Your task to perform on an android device: How much does a 3 bedroom apartment rent for in Philadelphia? Image 0: 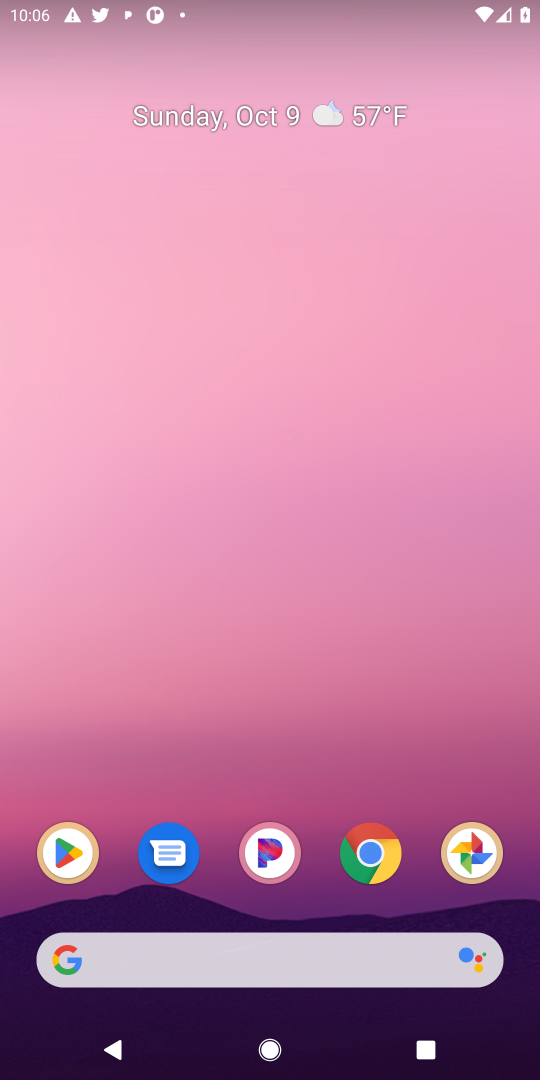
Step 0: click (351, 850)
Your task to perform on an android device: How much does a 3 bedroom apartment rent for in Philadelphia? Image 1: 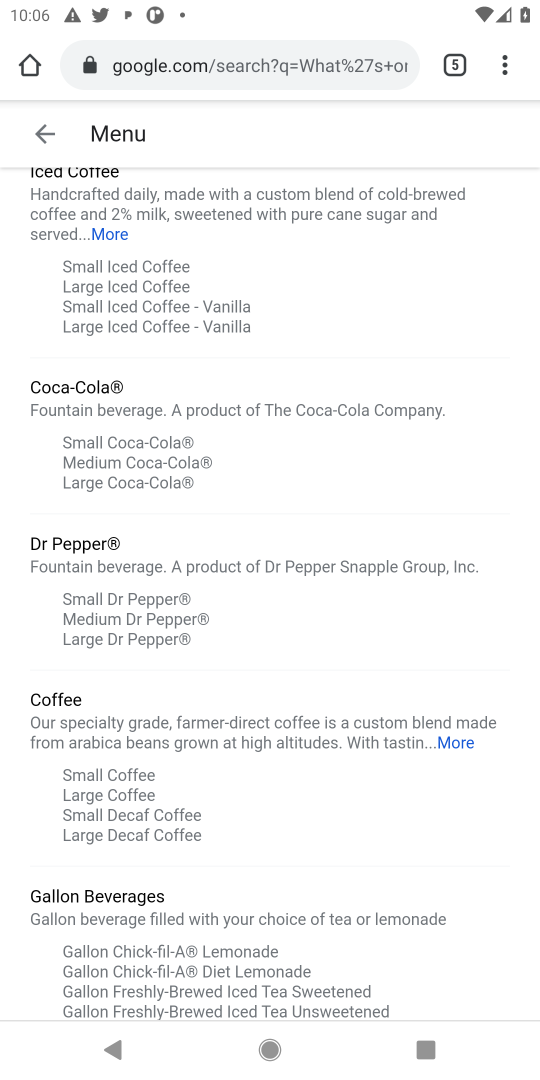
Step 1: click (264, 71)
Your task to perform on an android device: How much does a 3 bedroom apartment rent for in Philadelphia? Image 2: 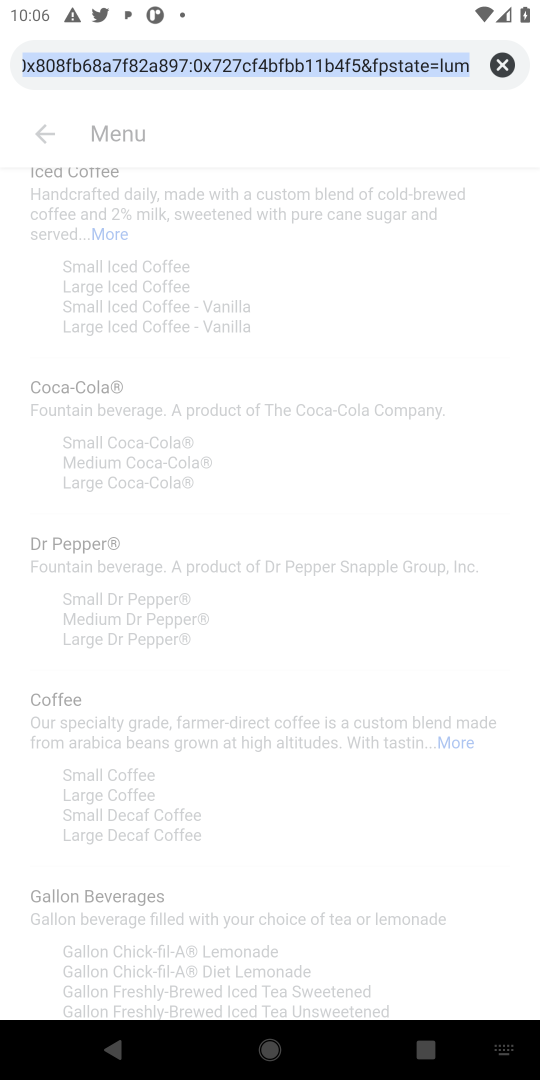
Step 2: type "How much does a 3 bedroom apartment rent for in Philadelphia?"
Your task to perform on an android device: How much does a 3 bedroom apartment rent for in Philadelphia? Image 3: 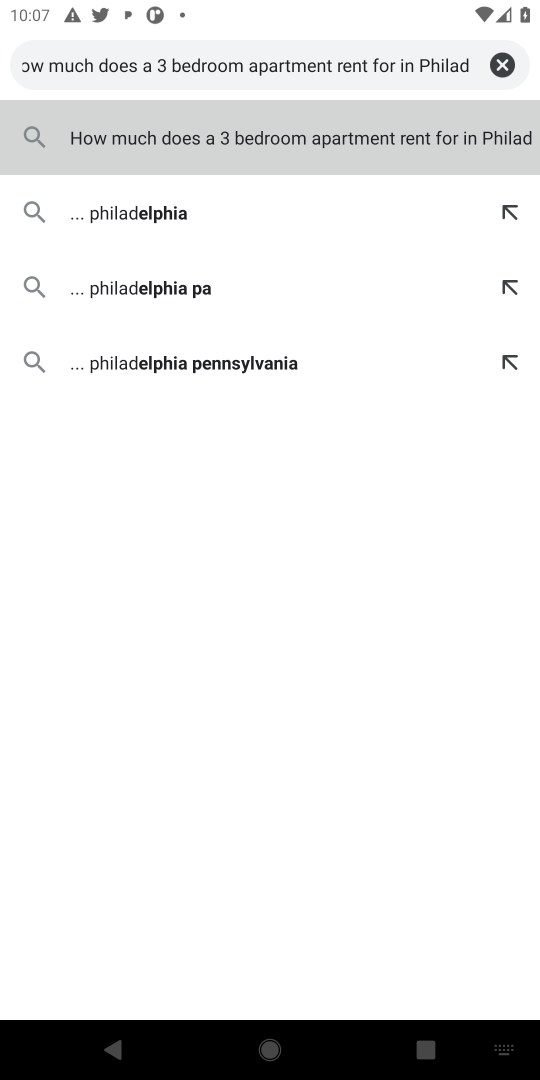
Step 3: type ""
Your task to perform on an android device: How much does a 3 bedroom apartment rent for in Philadelphia? Image 4: 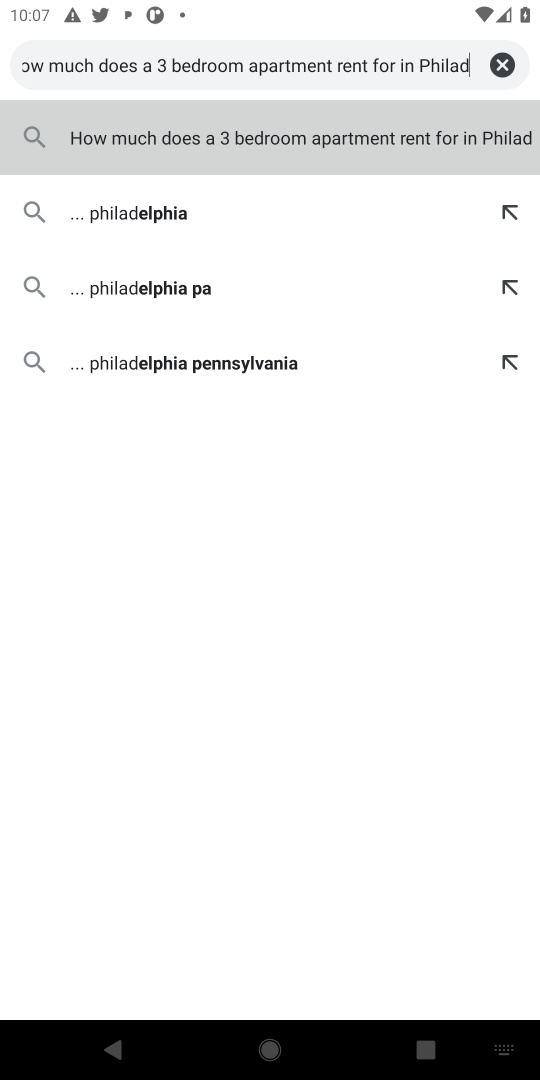
Step 4: press enter
Your task to perform on an android device: How much does a 3 bedroom apartment rent for in Philadelphia? Image 5: 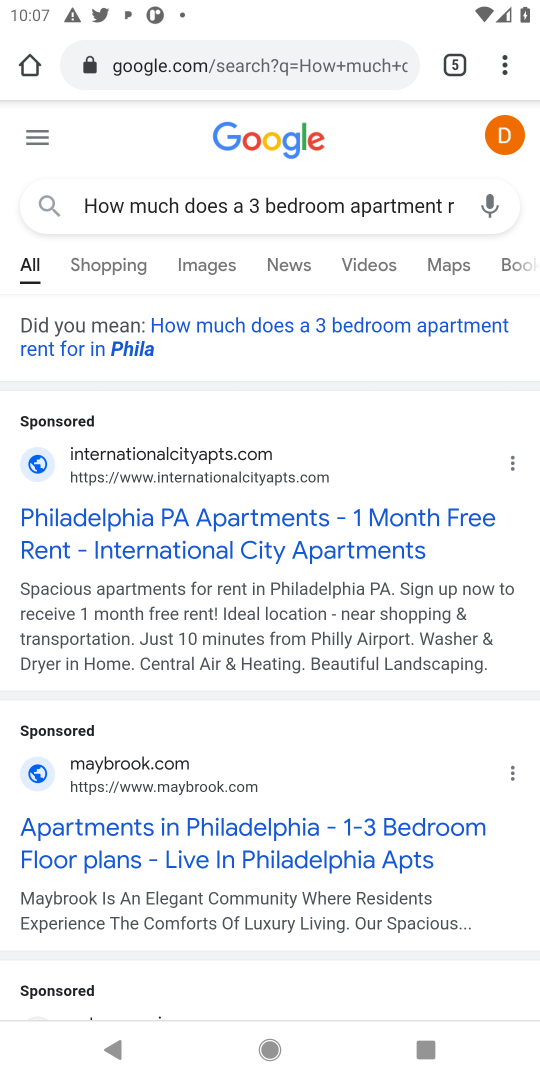
Step 5: click (174, 518)
Your task to perform on an android device: How much does a 3 bedroom apartment rent for in Philadelphia? Image 6: 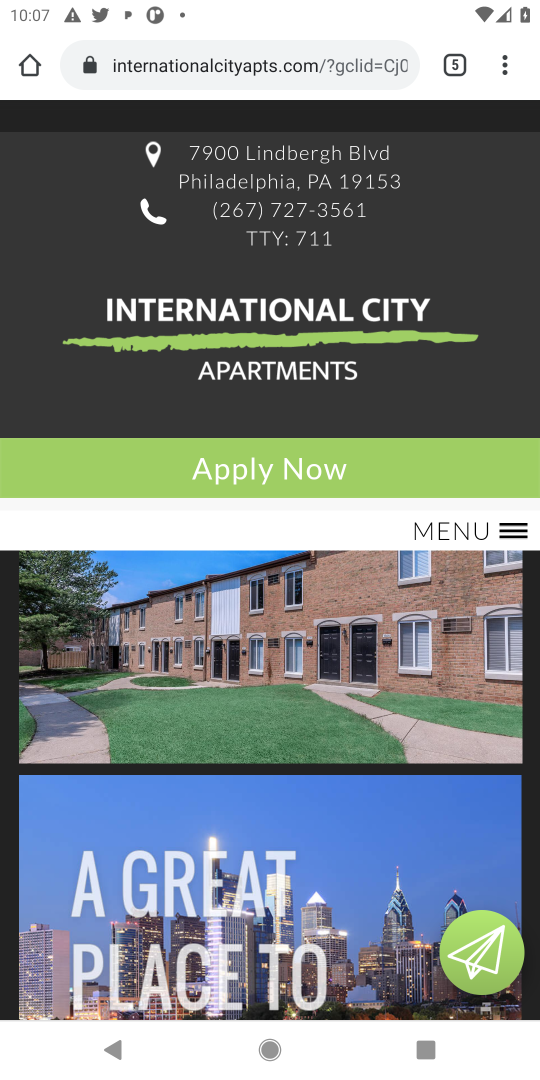
Step 6: drag from (312, 764) to (351, 245)
Your task to perform on an android device: How much does a 3 bedroom apartment rent for in Philadelphia? Image 7: 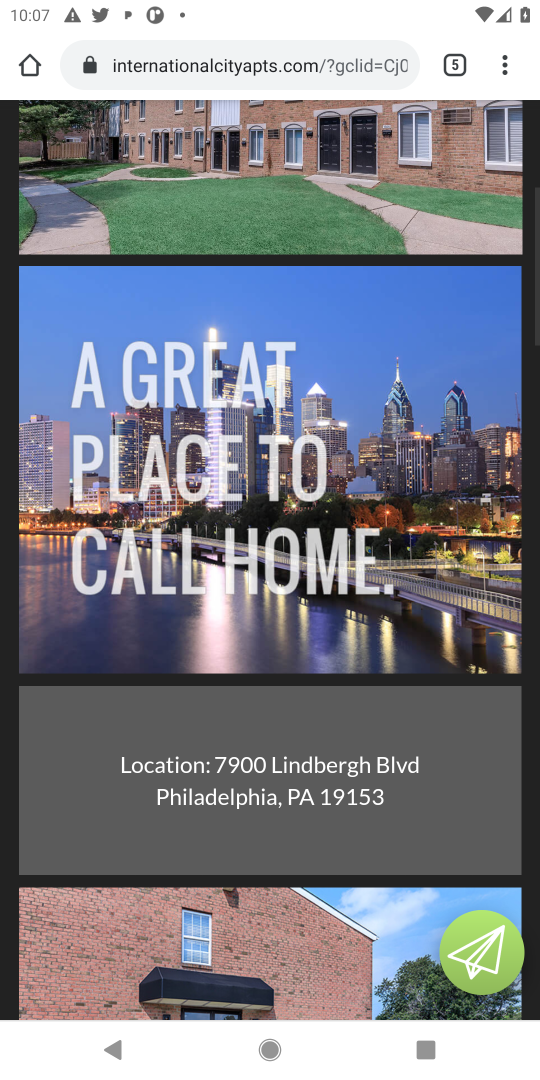
Step 7: drag from (339, 406) to (381, 273)
Your task to perform on an android device: How much does a 3 bedroom apartment rent for in Philadelphia? Image 8: 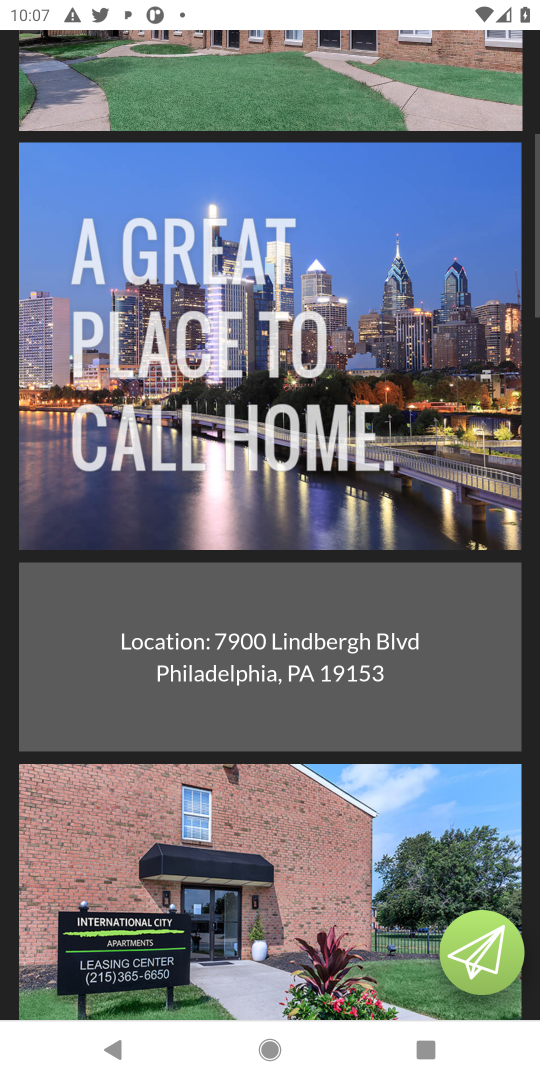
Step 8: drag from (359, 361) to (381, 262)
Your task to perform on an android device: How much does a 3 bedroom apartment rent for in Philadelphia? Image 9: 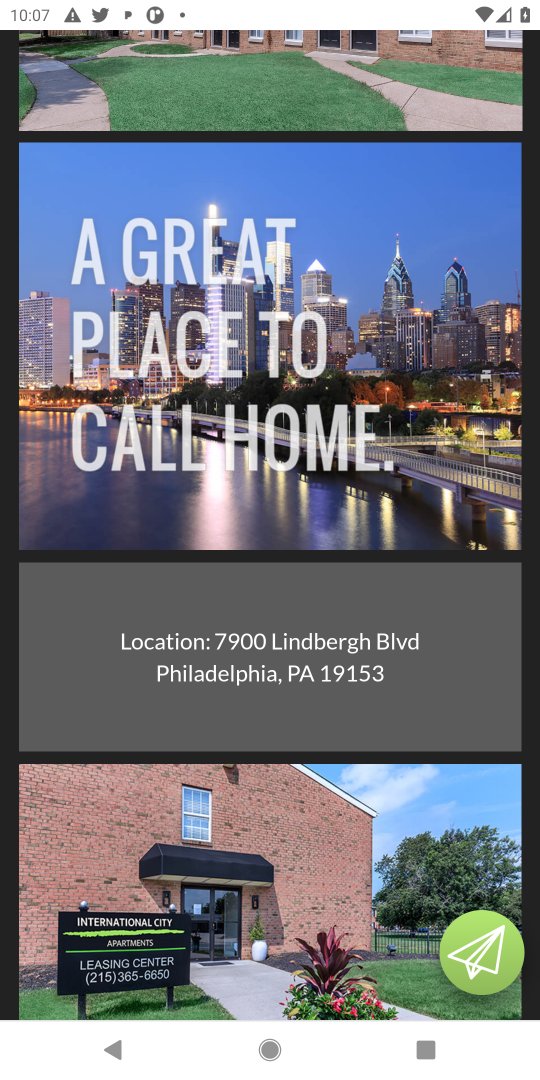
Step 9: drag from (375, 649) to (384, 224)
Your task to perform on an android device: How much does a 3 bedroom apartment rent for in Philadelphia? Image 10: 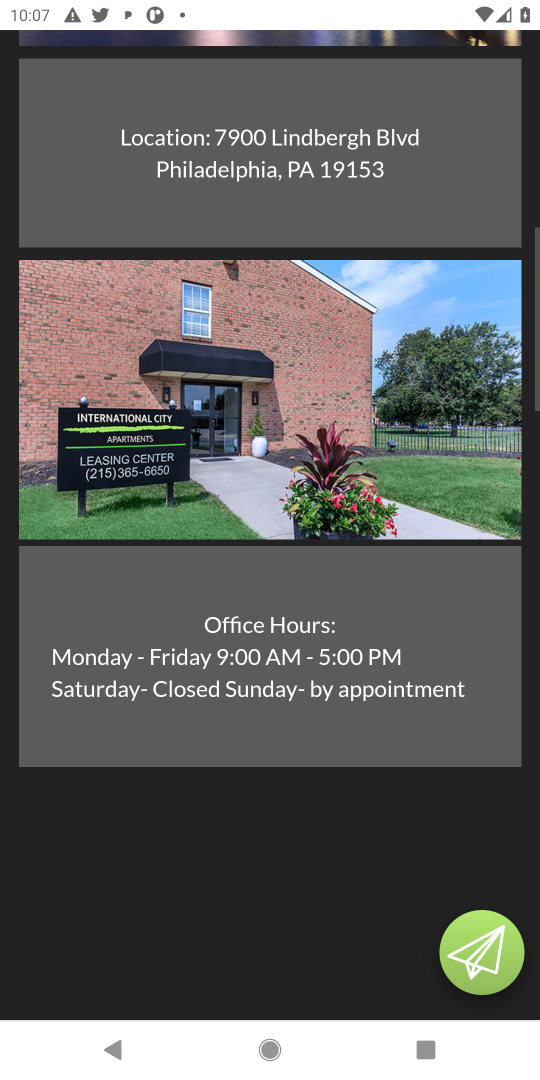
Step 10: drag from (396, 659) to (432, 202)
Your task to perform on an android device: How much does a 3 bedroom apartment rent for in Philadelphia? Image 11: 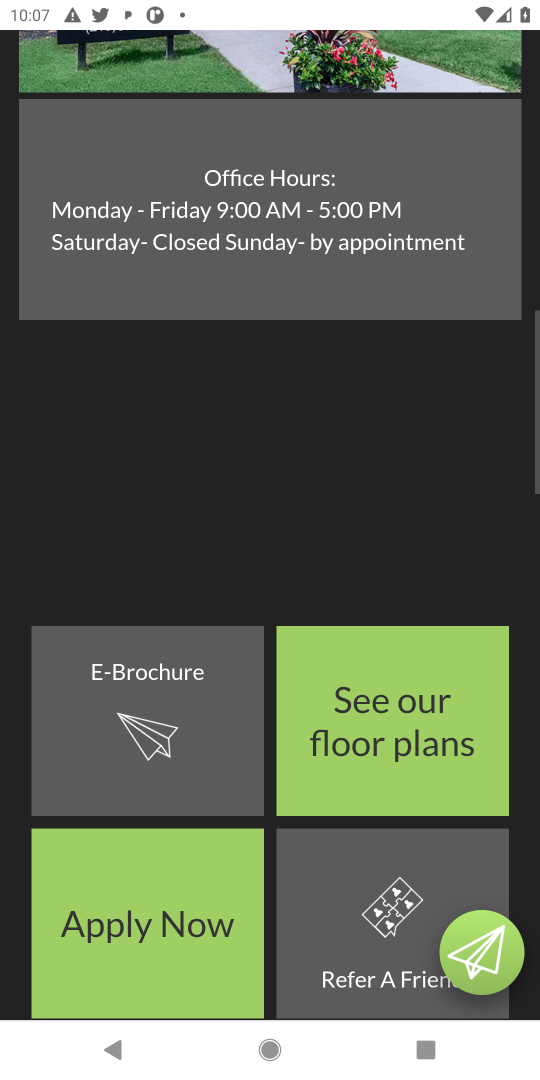
Step 11: drag from (441, 558) to (447, 194)
Your task to perform on an android device: How much does a 3 bedroom apartment rent for in Philadelphia? Image 12: 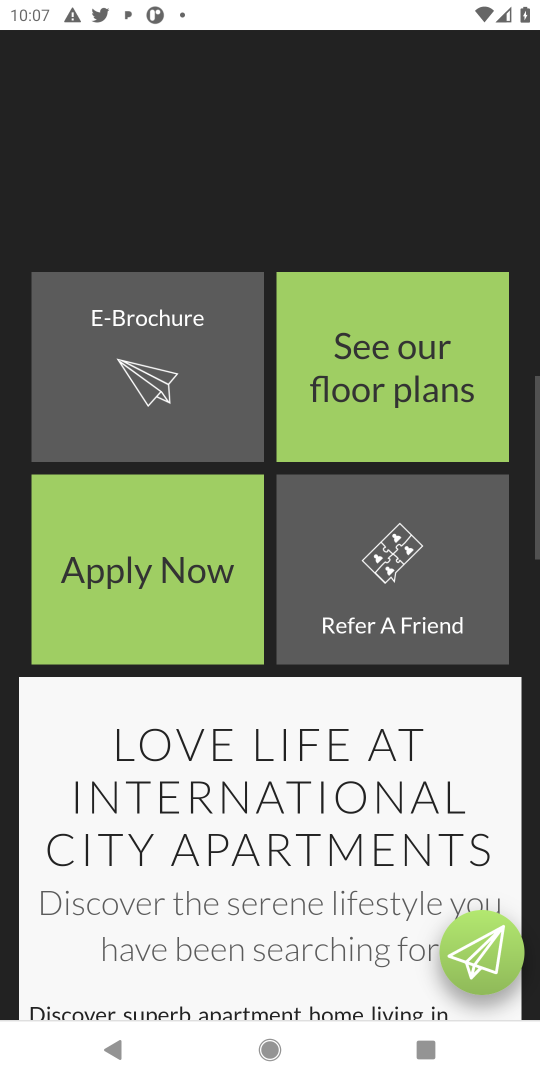
Step 12: drag from (388, 644) to (427, 198)
Your task to perform on an android device: How much does a 3 bedroom apartment rent for in Philadelphia? Image 13: 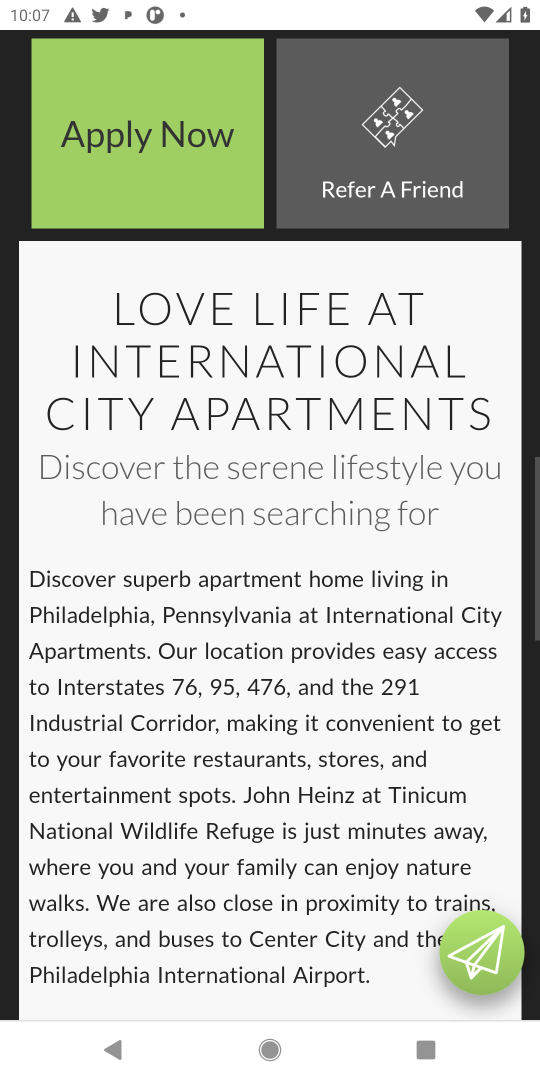
Step 13: drag from (370, 616) to (396, 170)
Your task to perform on an android device: How much does a 3 bedroom apartment rent for in Philadelphia? Image 14: 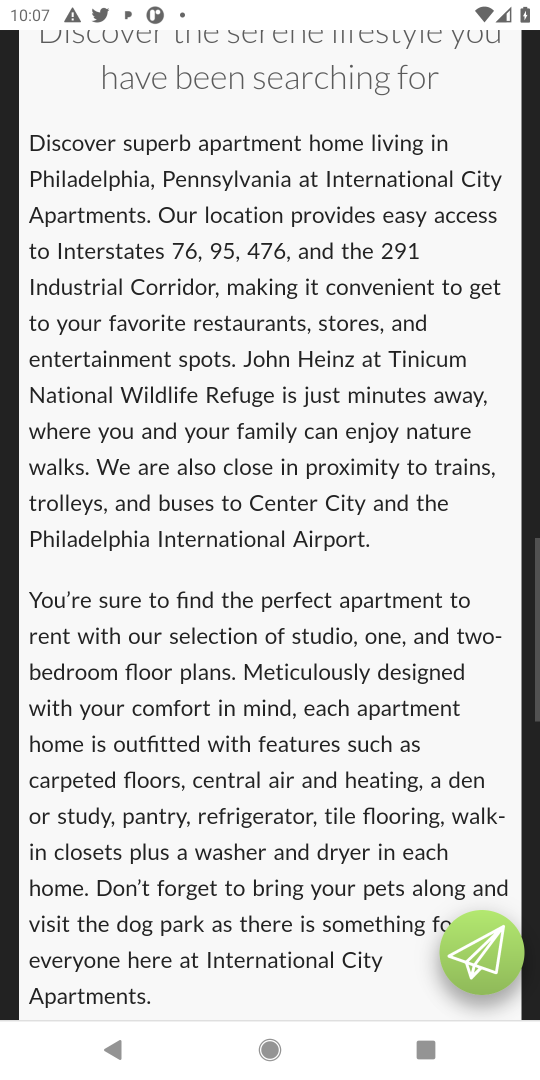
Step 14: drag from (329, 559) to (336, 310)
Your task to perform on an android device: How much does a 3 bedroom apartment rent for in Philadelphia? Image 15: 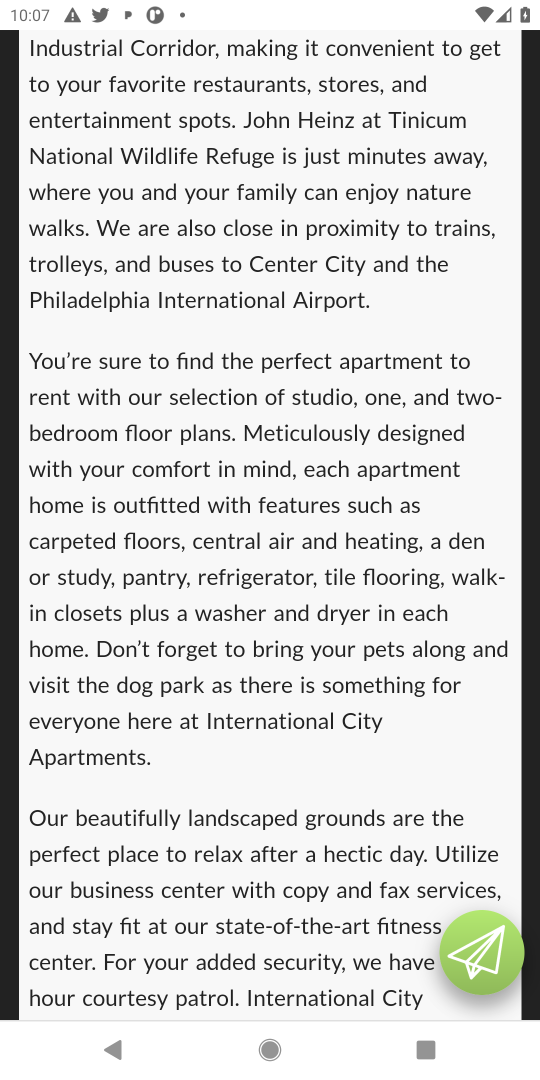
Step 15: drag from (313, 574) to (351, 182)
Your task to perform on an android device: How much does a 3 bedroom apartment rent for in Philadelphia? Image 16: 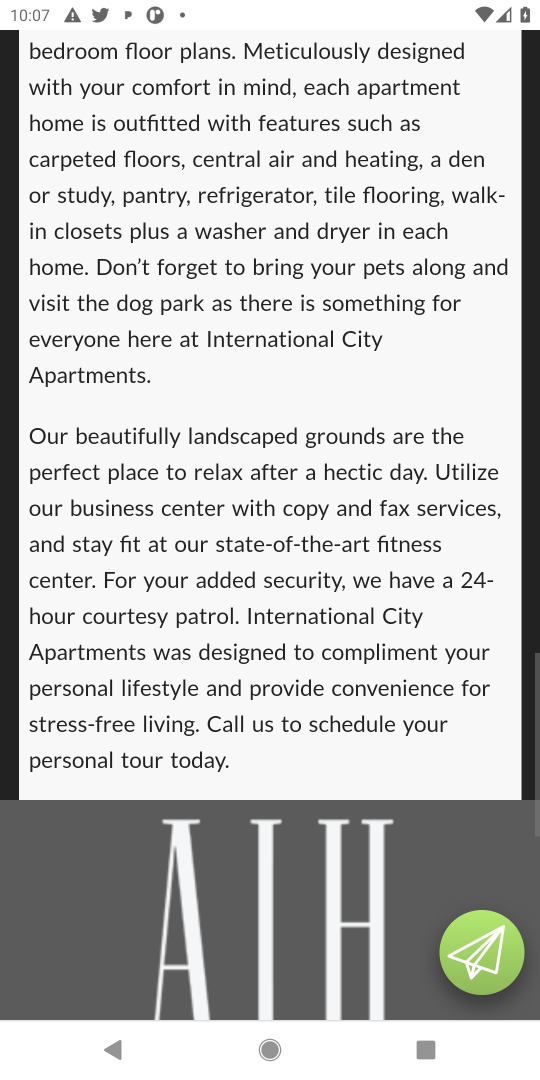
Step 16: drag from (263, 664) to (305, 300)
Your task to perform on an android device: How much does a 3 bedroom apartment rent for in Philadelphia? Image 17: 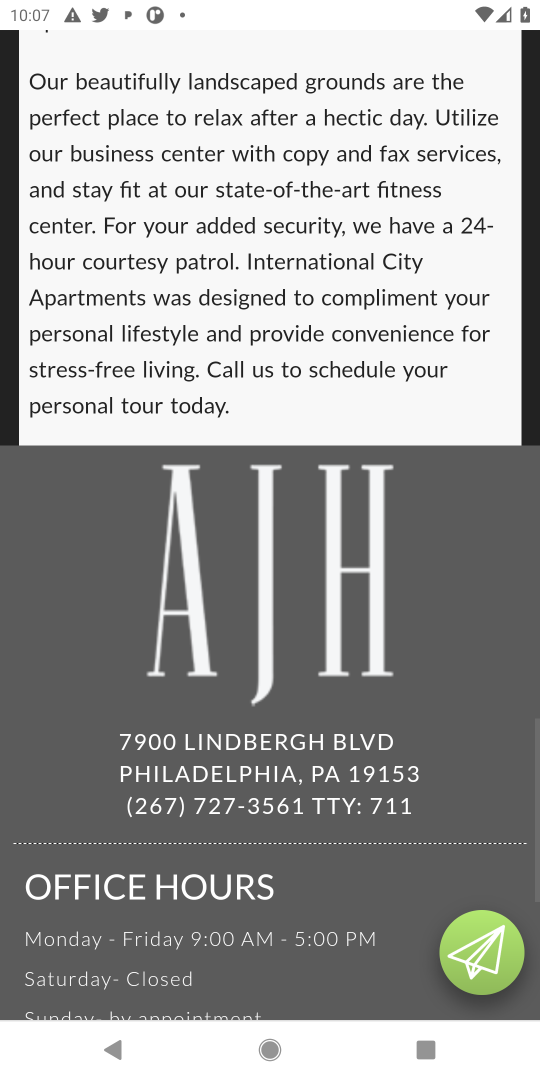
Step 17: drag from (294, 700) to (301, 262)
Your task to perform on an android device: How much does a 3 bedroom apartment rent for in Philadelphia? Image 18: 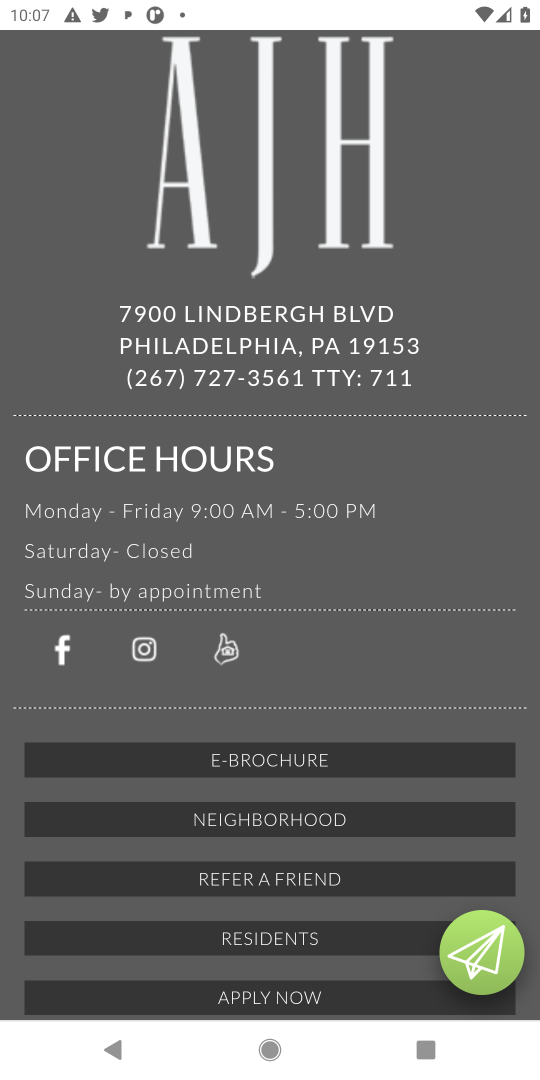
Step 18: drag from (393, 630) to (440, 348)
Your task to perform on an android device: How much does a 3 bedroom apartment rent for in Philadelphia? Image 19: 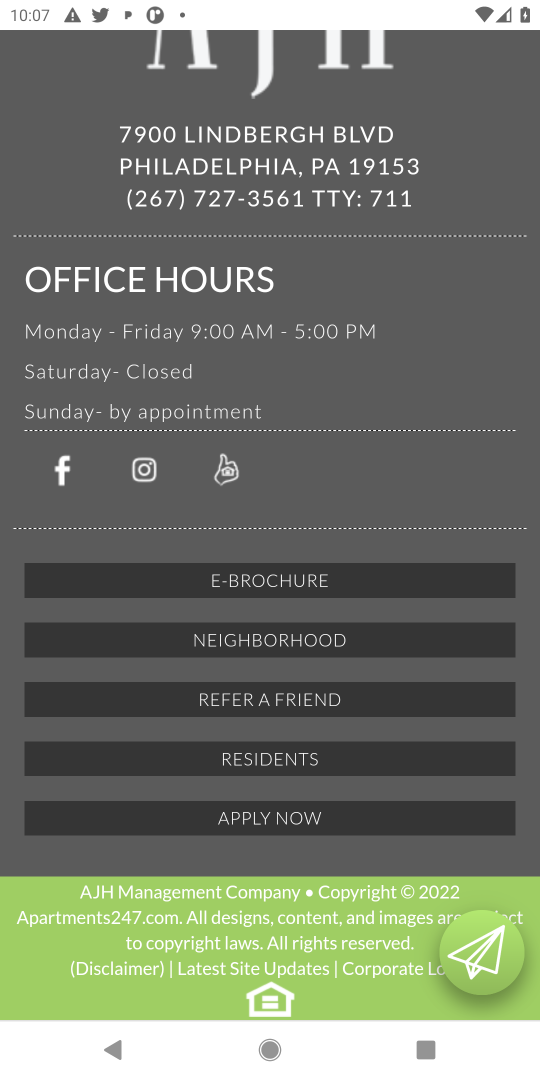
Step 19: drag from (333, 667) to (336, 244)
Your task to perform on an android device: How much does a 3 bedroom apartment rent for in Philadelphia? Image 20: 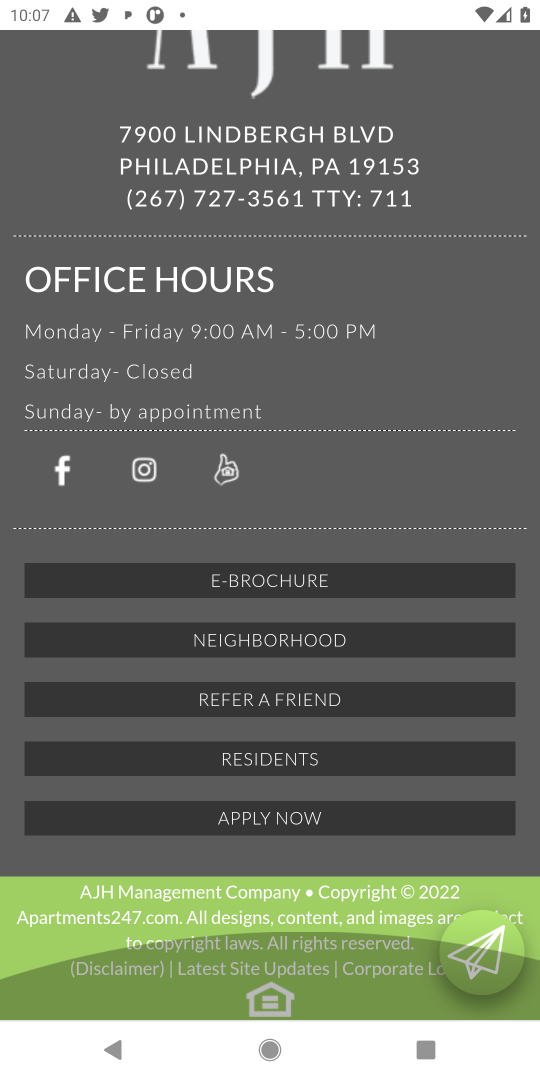
Step 20: drag from (286, 624) to (300, 330)
Your task to perform on an android device: How much does a 3 bedroom apartment rent for in Philadelphia? Image 21: 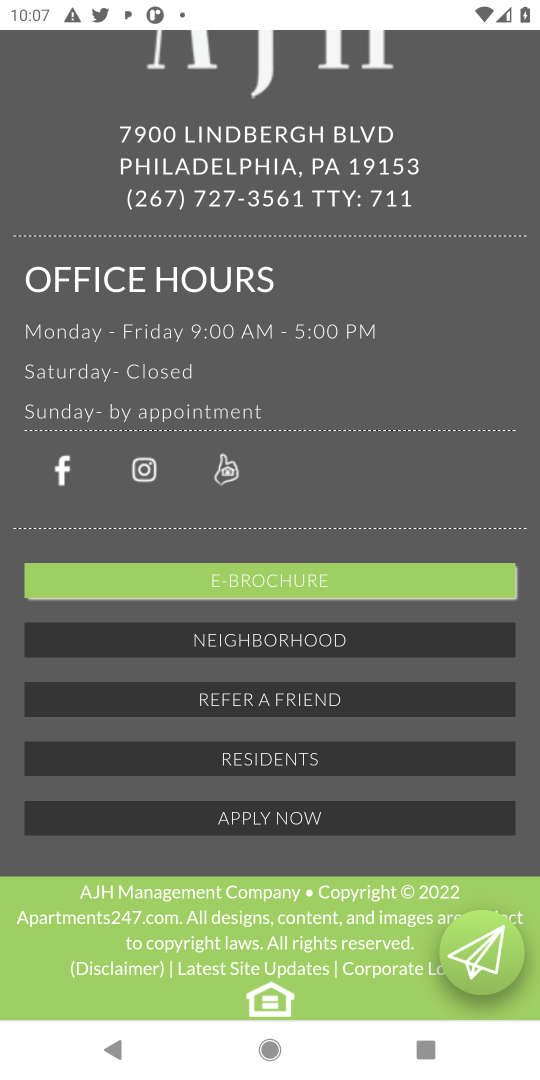
Step 21: drag from (299, 743) to (327, 243)
Your task to perform on an android device: How much does a 3 bedroom apartment rent for in Philadelphia? Image 22: 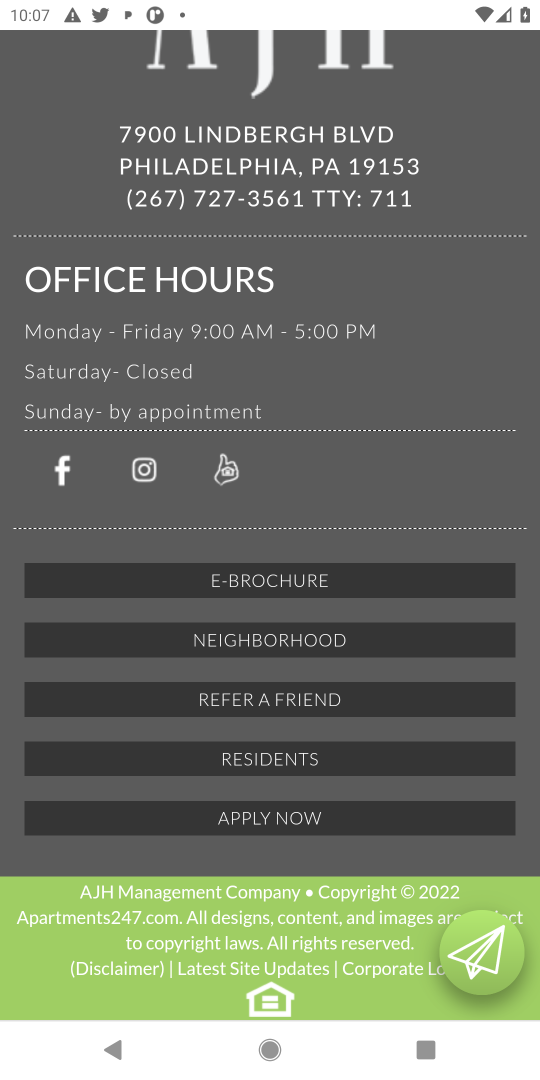
Step 22: press back button
Your task to perform on an android device: How much does a 3 bedroom apartment rent for in Philadelphia? Image 23: 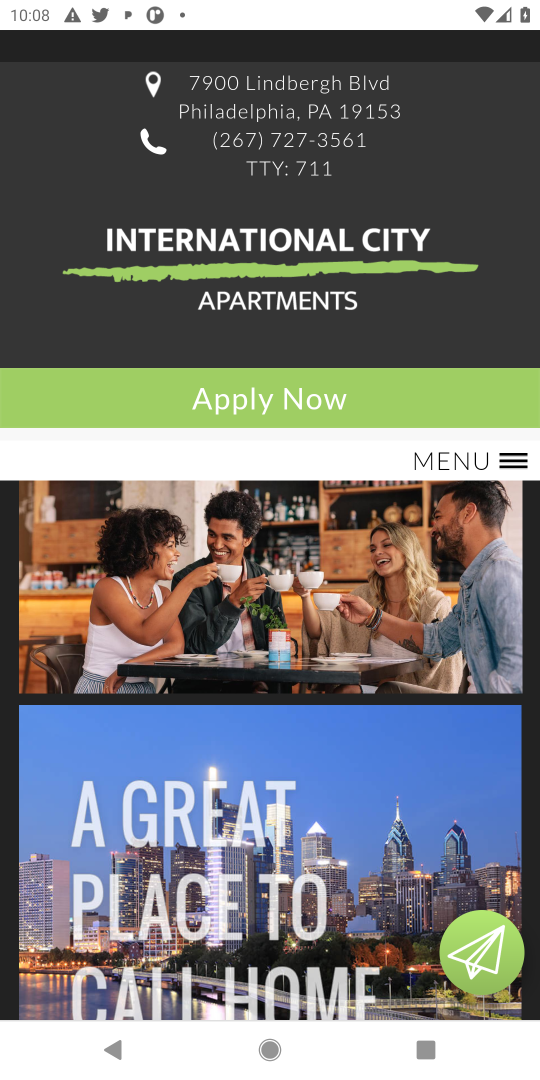
Step 23: press back button
Your task to perform on an android device: How much does a 3 bedroom apartment rent for in Philadelphia? Image 24: 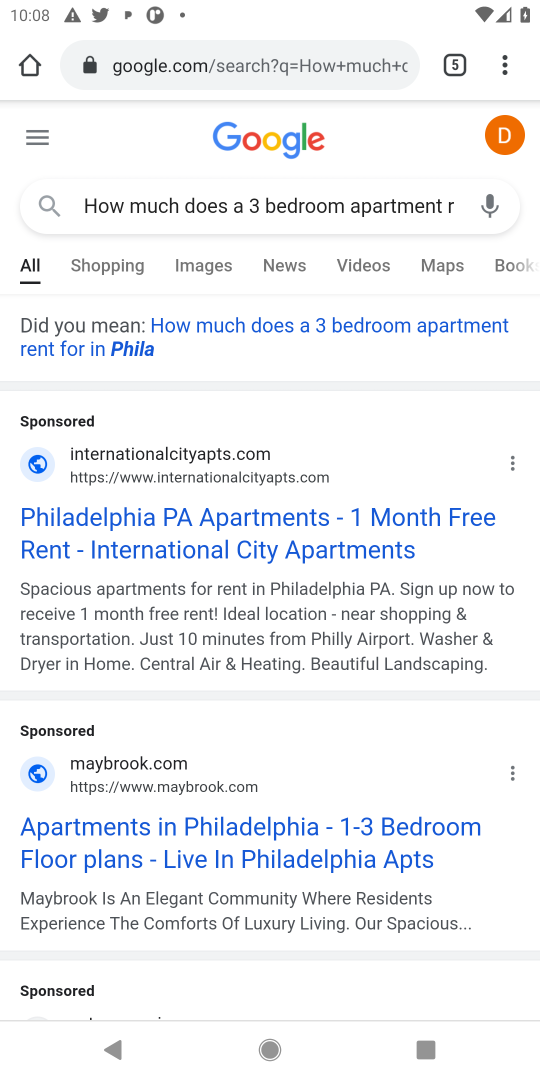
Step 24: drag from (205, 509) to (251, 148)
Your task to perform on an android device: How much does a 3 bedroom apartment rent for in Philadelphia? Image 25: 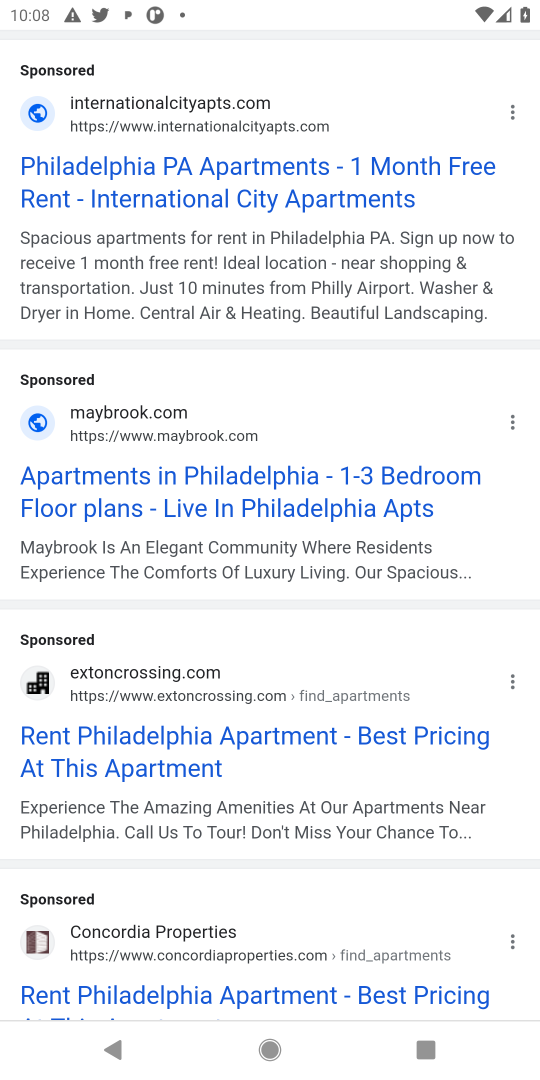
Step 25: drag from (149, 791) to (239, 241)
Your task to perform on an android device: How much does a 3 bedroom apartment rent for in Philadelphia? Image 26: 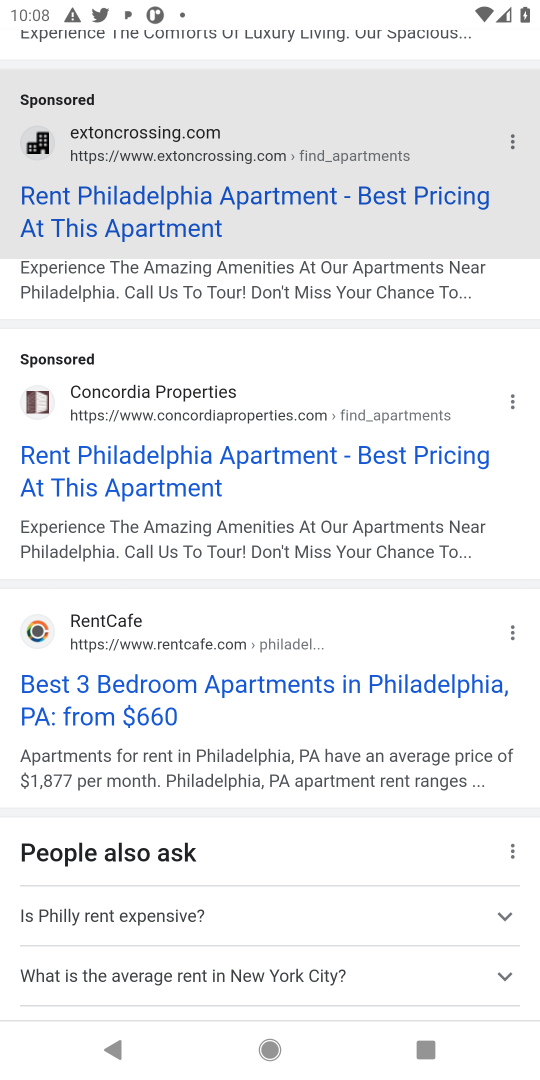
Step 26: click (276, 669)
Your task to perform on an android device: How much does a 3 bedroom apartment rent for in Philadelphia? Image 27: 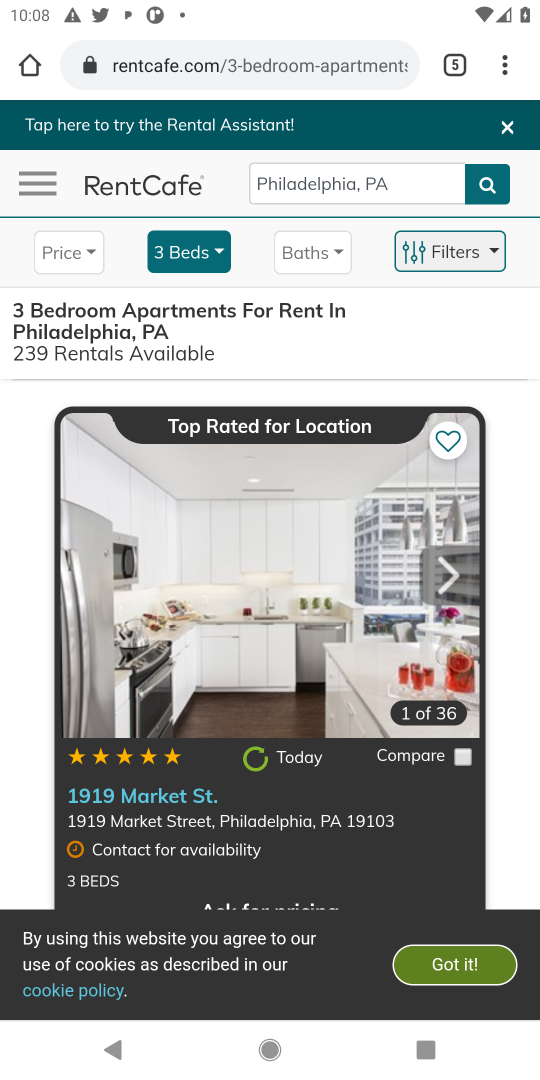
Step 27: drag from (292, 612) to (333, 168)
Your task to perform on an android device: How much does a 3 bedroom apartment rent for in Philadelphia? Image 28: 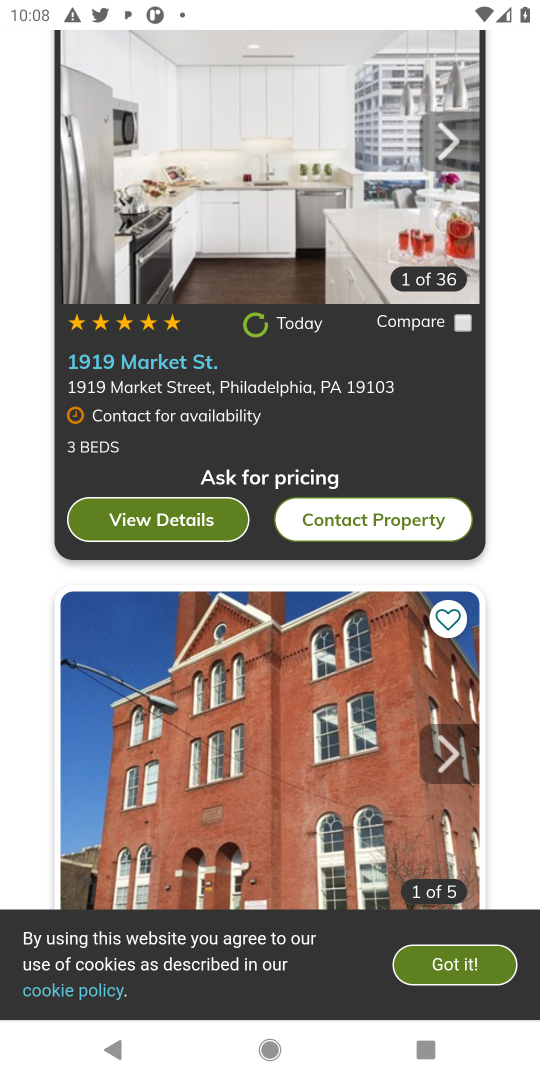
Step 28: drag from (376, 557) to (373, 97)
Your task to perform on an android device: How much does a 3 bedroom apartment rent for in Philadelphia? Image 29: 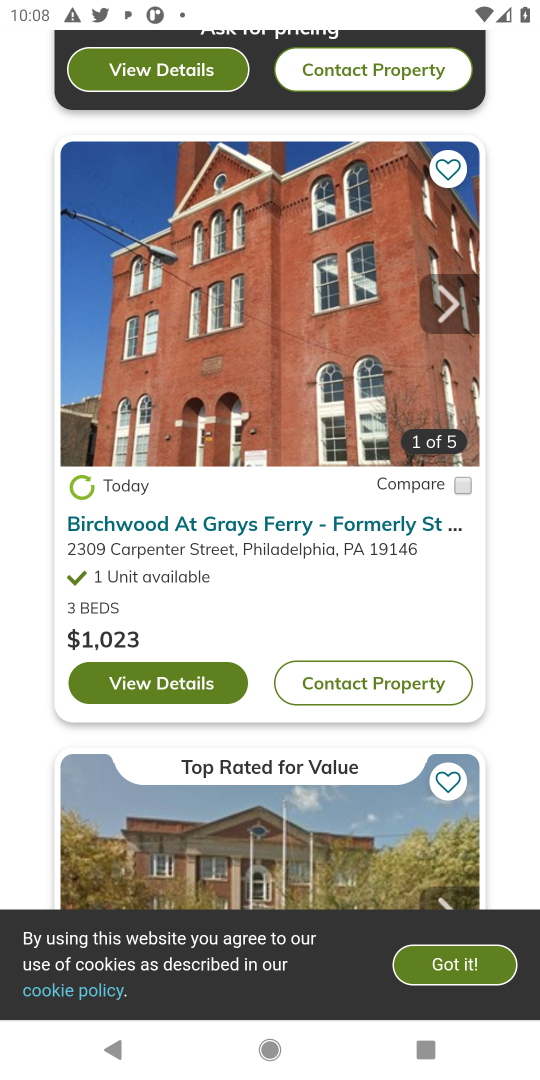
Step 29: drag from (401, 673) to (337, 28)
Your task to perform on an android device: How much does a 3 bedroom apartment rent for in Philadelphia? Image 30: 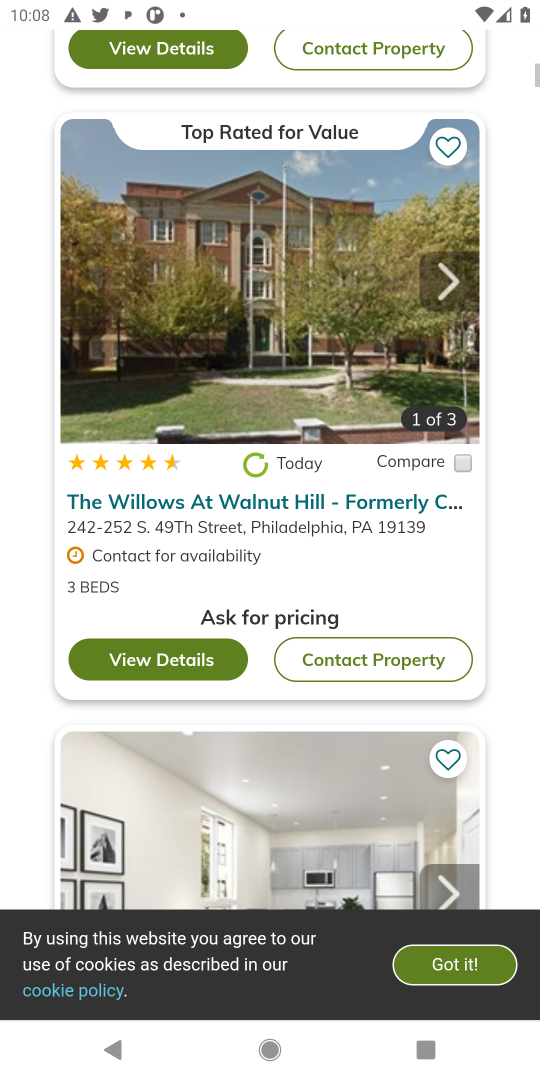
Step 30: drag from (279, 494) to (274, 135)
Your task to perform on an android device: How much does a 3 bedroom apartment rent for in Philadelphia? Image 31: 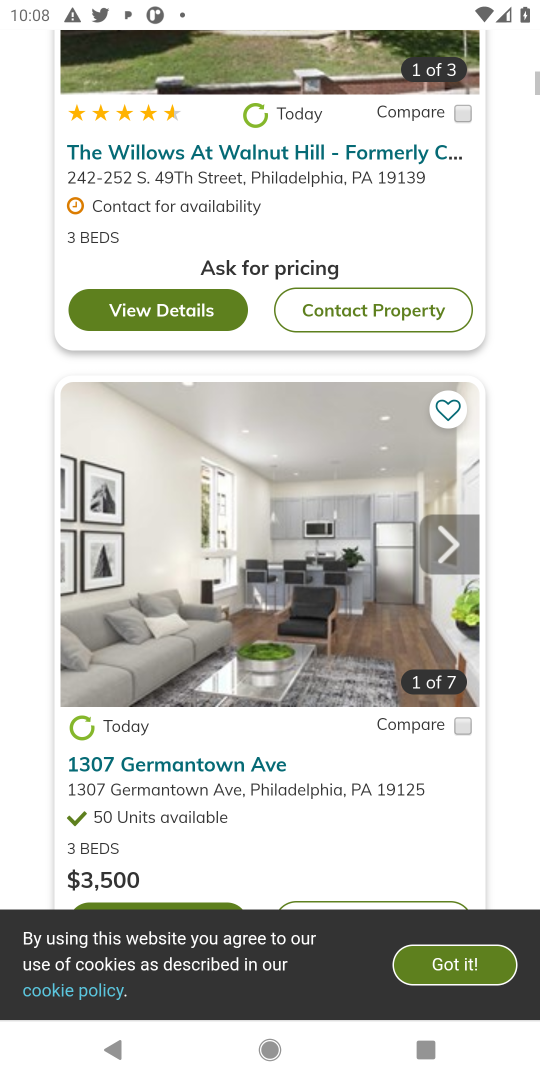
Step 31: drag from (343, 715) to (278, 255)
Your task to perform on an android device: How much does a 3 bedroom apartment rent for in Philadelphia? Image 32: 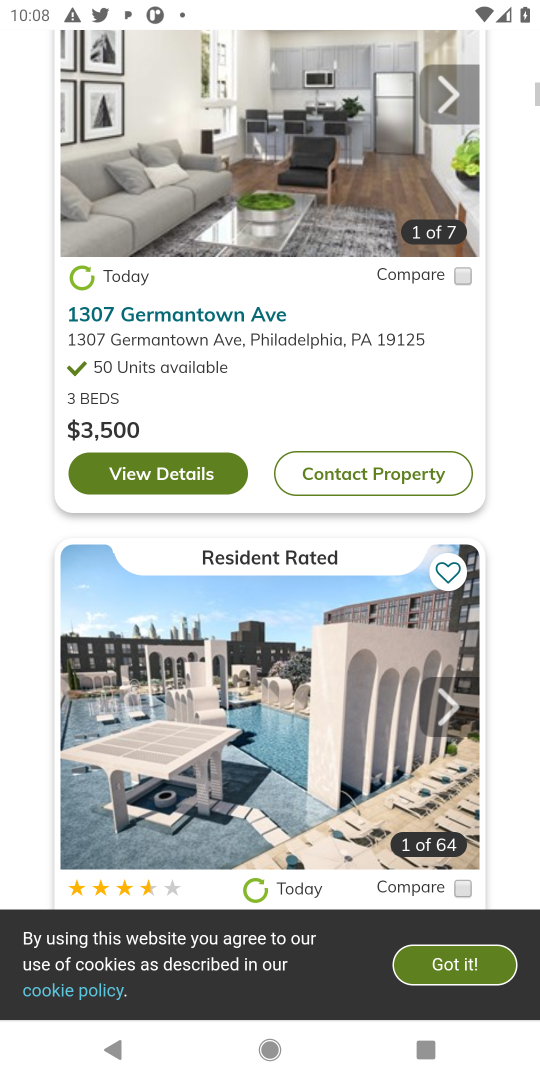
Step 32: drag from (331, 639) to (333, 335)
Your task to perform on an android device: How much does a 3 bedroom apartment rent for in Philadelphia? Image 33: 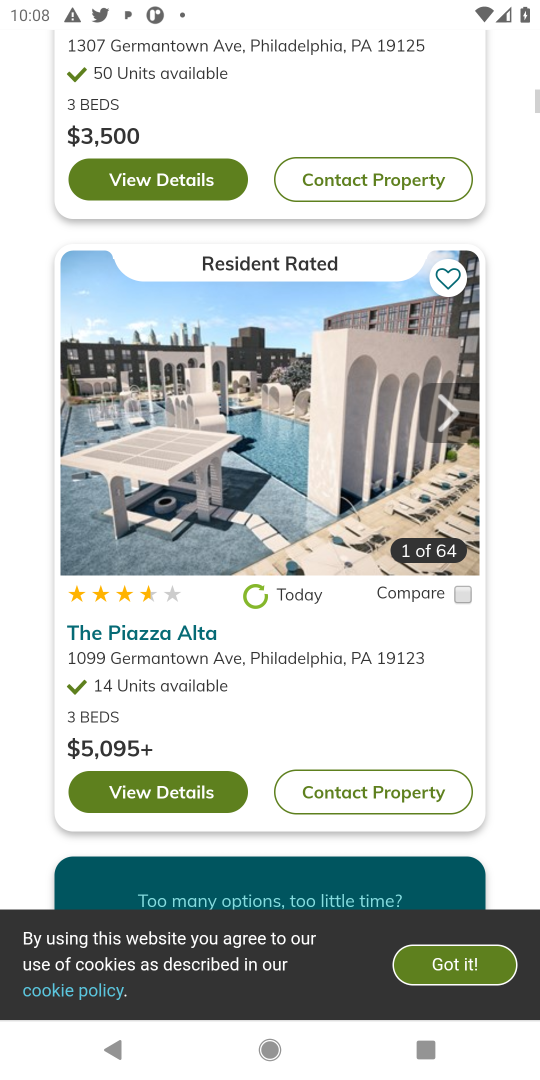
Step 33: drag from (332, 634) to (331, 301)
Your task to perform on an android device: How much does a 3 bedroom apartment rent for in Philadelphia? Image 34: 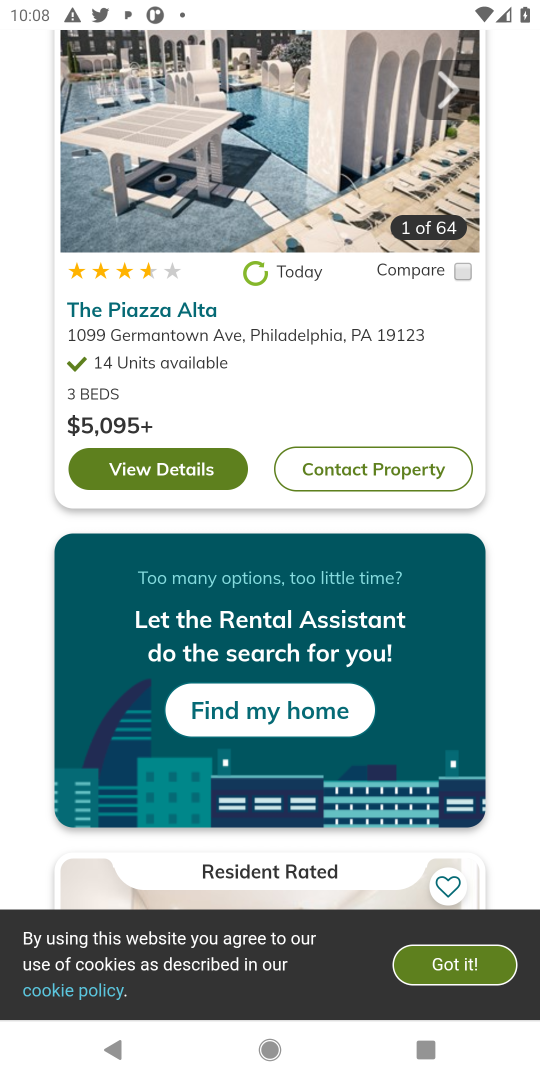
Step 34: drag from (302, 521) to (288, 411)
Your task to perform on an android device: How much does a 3 bedroom apartment rent for in Philadelphia? Image 35: 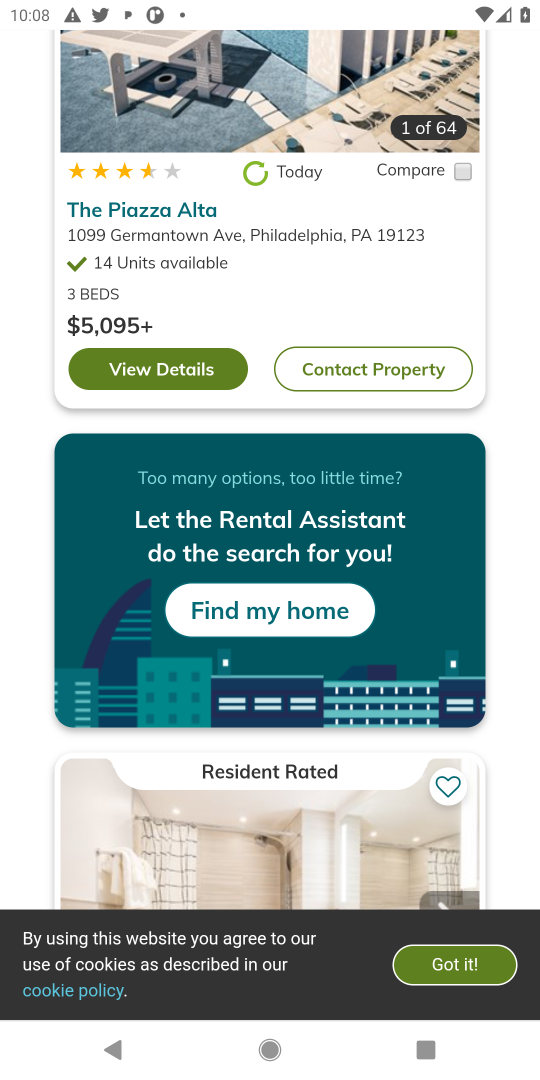
Step 35: click (342, 349)
Your task to perform on an android device: How much does a 3 bedroom apartment rent for in Philadelphia? Image 36: 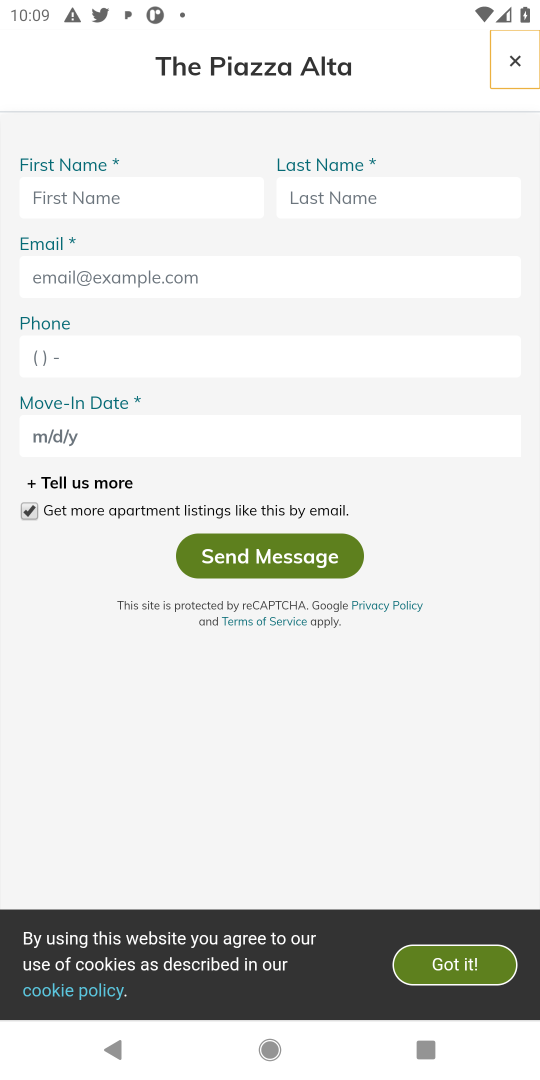
Step 36: drag from (333, 564) to (357, 352)
Your task to perform on an android device: How much does a 3 bedroom apartment rent for in Philadelphia? Image 37: 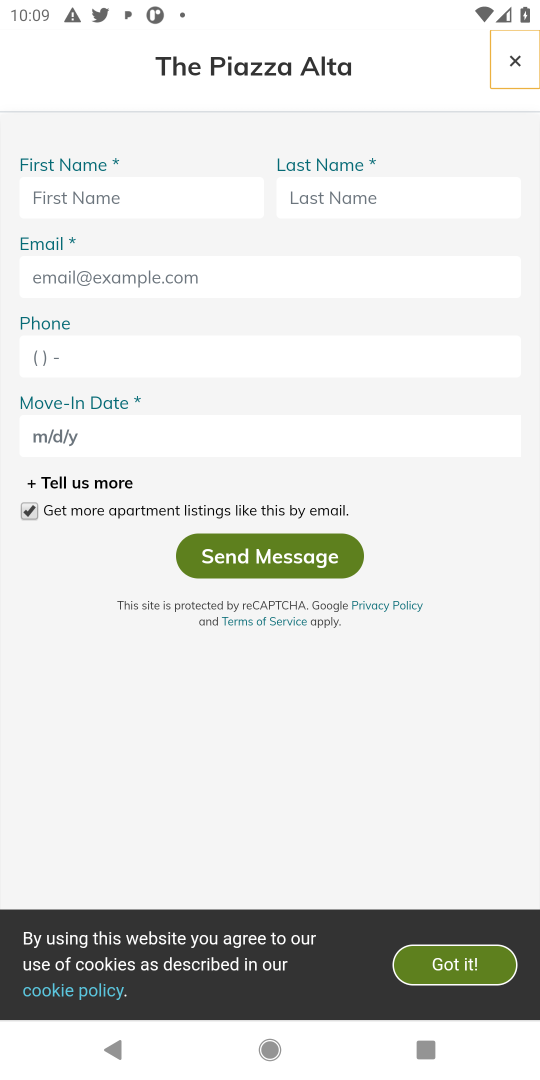
Step 37: drag from (310, 527) to (316, 421)
Your task to perform on an android device: How much does a 3 bedroom apartment rent for in Philadelphia? Image 38: 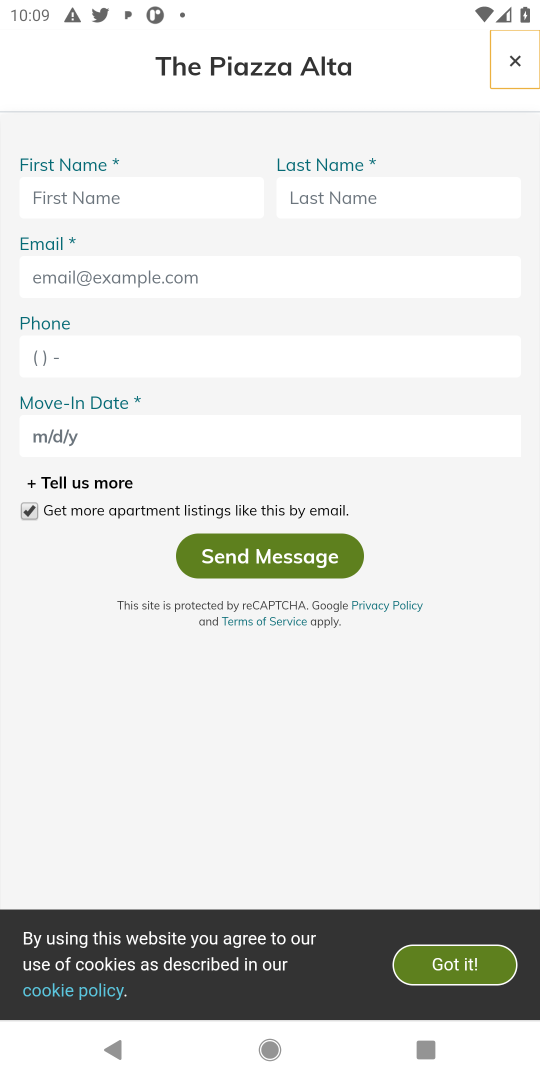
Step 38: drag from (325, 651) to (362, 368)
Your task to perform on an android device: How much does a 3 bedroom apartment rent for in Philadelphia? Image 39: 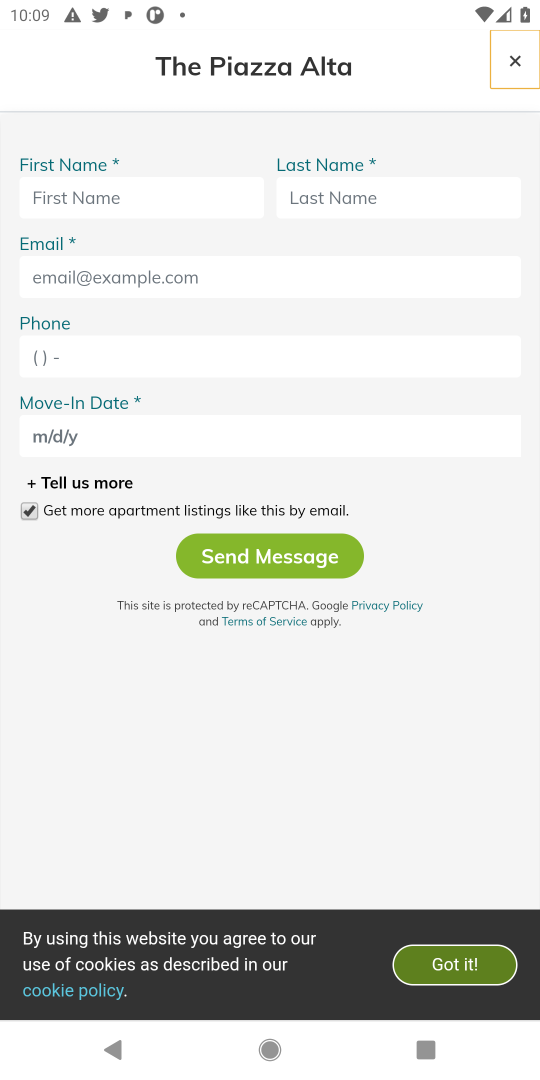
Step 39: press back button
Your task to perform on an android device: How much does a 3 bedroom apartment rent for in Philadelphia? Image 40: 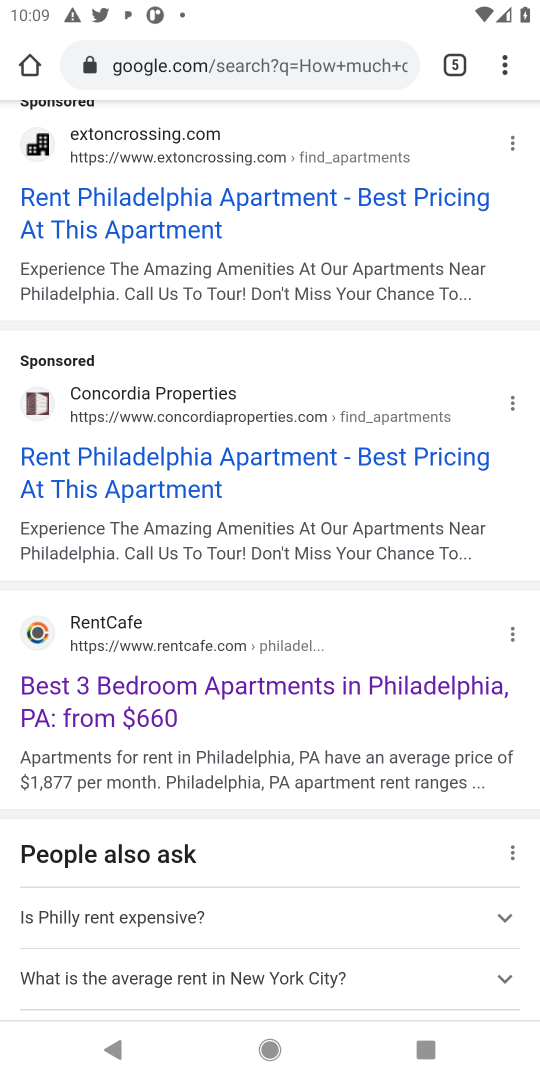
Step 40: click (190, 453)
Your task to perform on an android device: How much does a 3 bedroom apartment rent for in Philadelphia? Image 41: 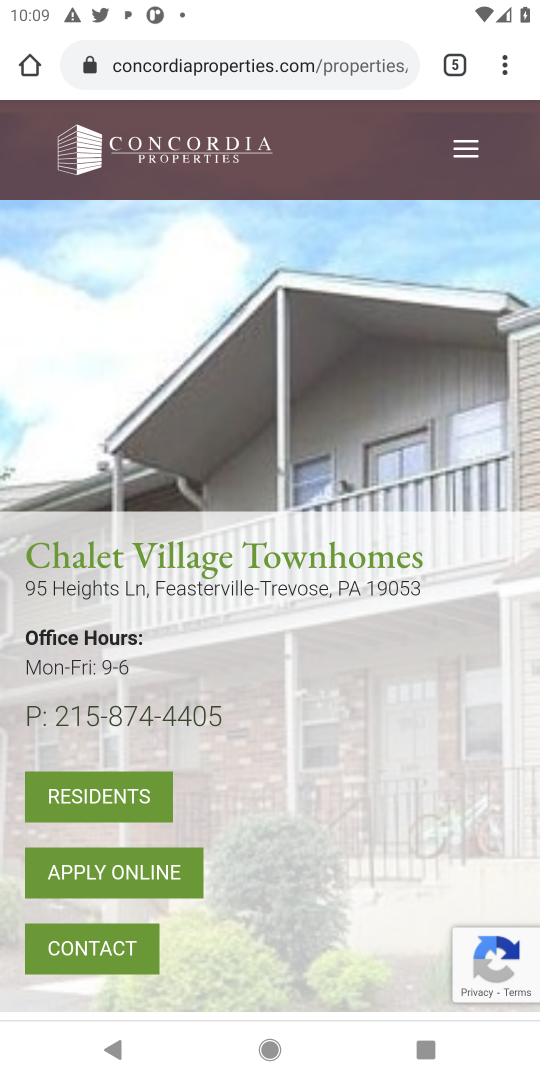
Step 41: task complete